Your task to perform on an android device: open app "Google Sheets" Image 0: 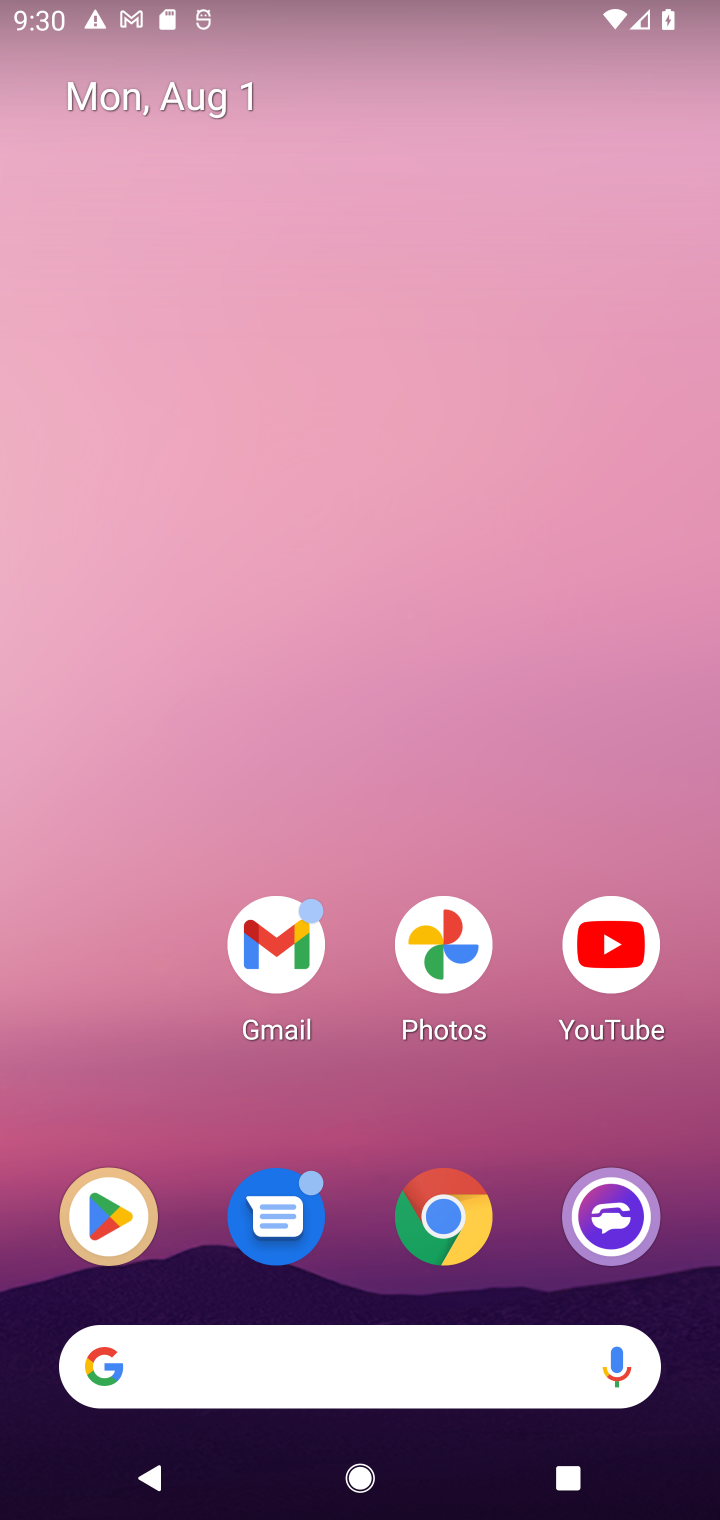
Step 0: click (107, 1242)
Your task to perform on an android device: open app "Google Sheets" Image 1: 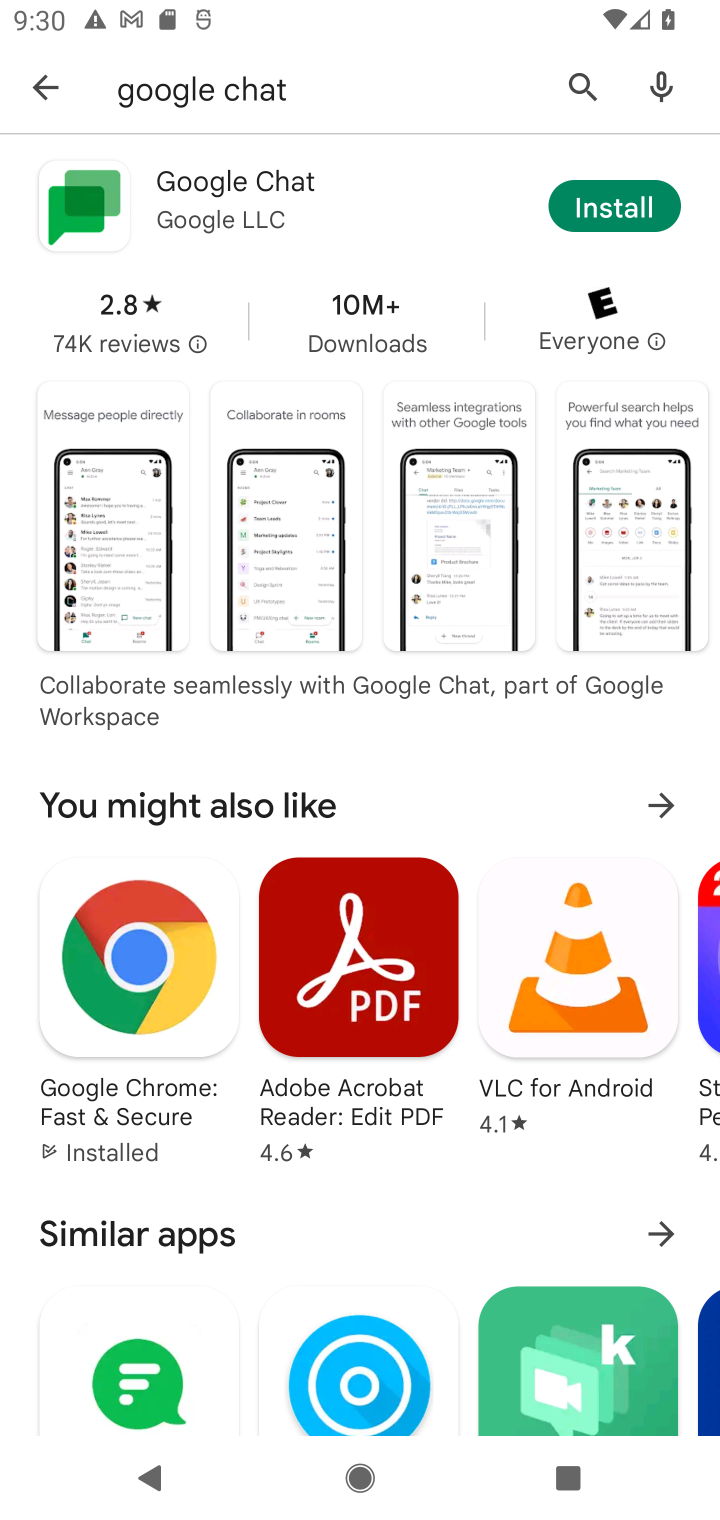
Step 1: click (578, 81)
Your task to perform on an android device: open app "Google Sheets" Image 2: 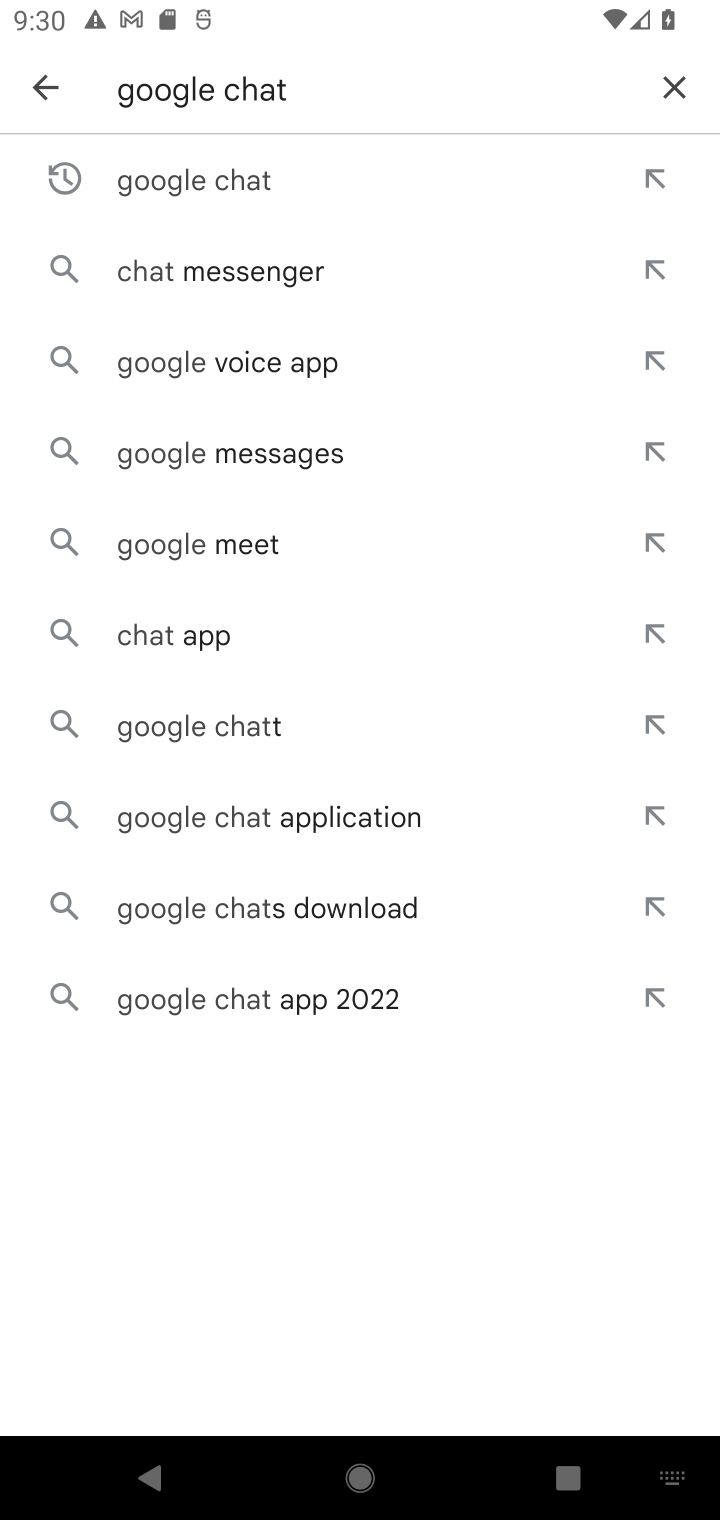
Step 2: click (684, 83)
Your task to perform on an android device: open app "Google Sheets" Image 3: 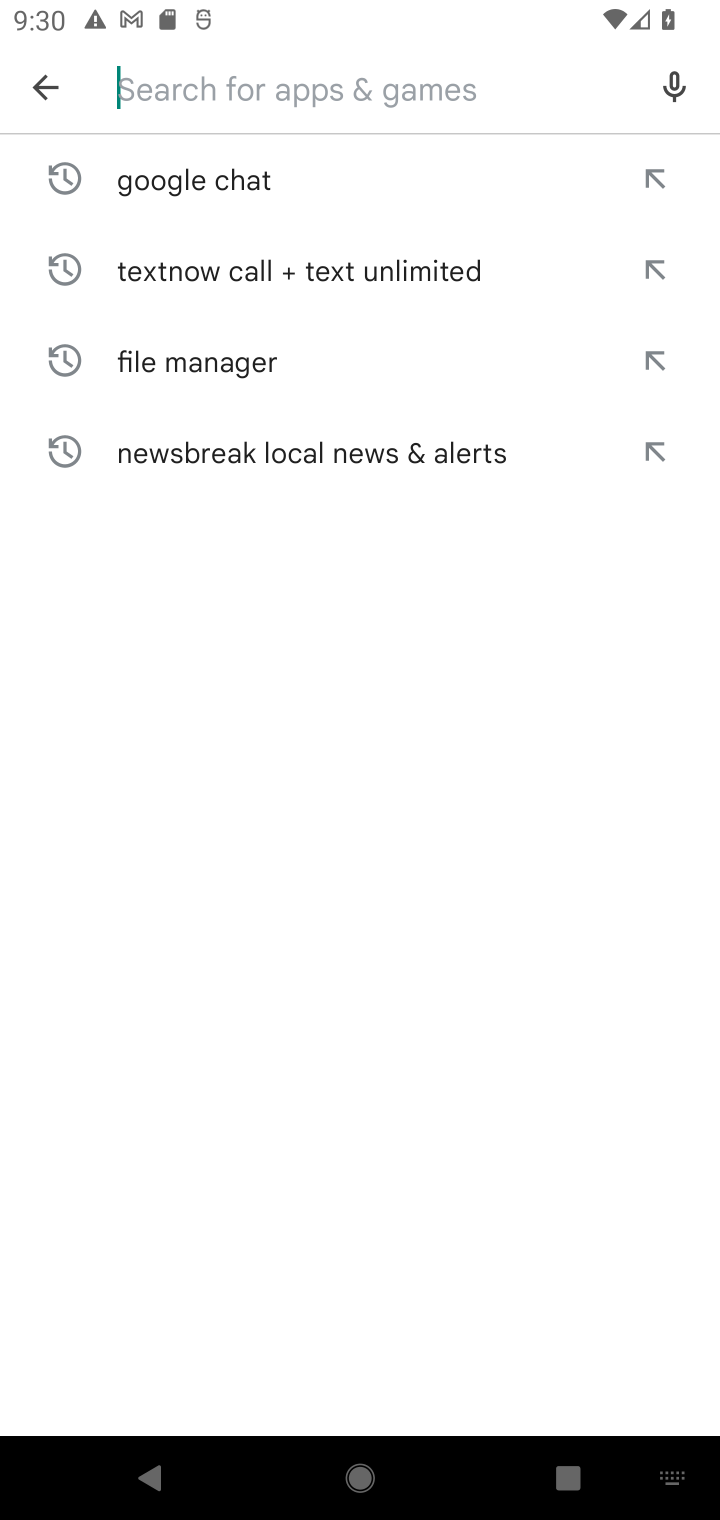
Step 3: type "Google Sheets"
Your task to perform on an android device: open app "Google Sheets" Image 4: 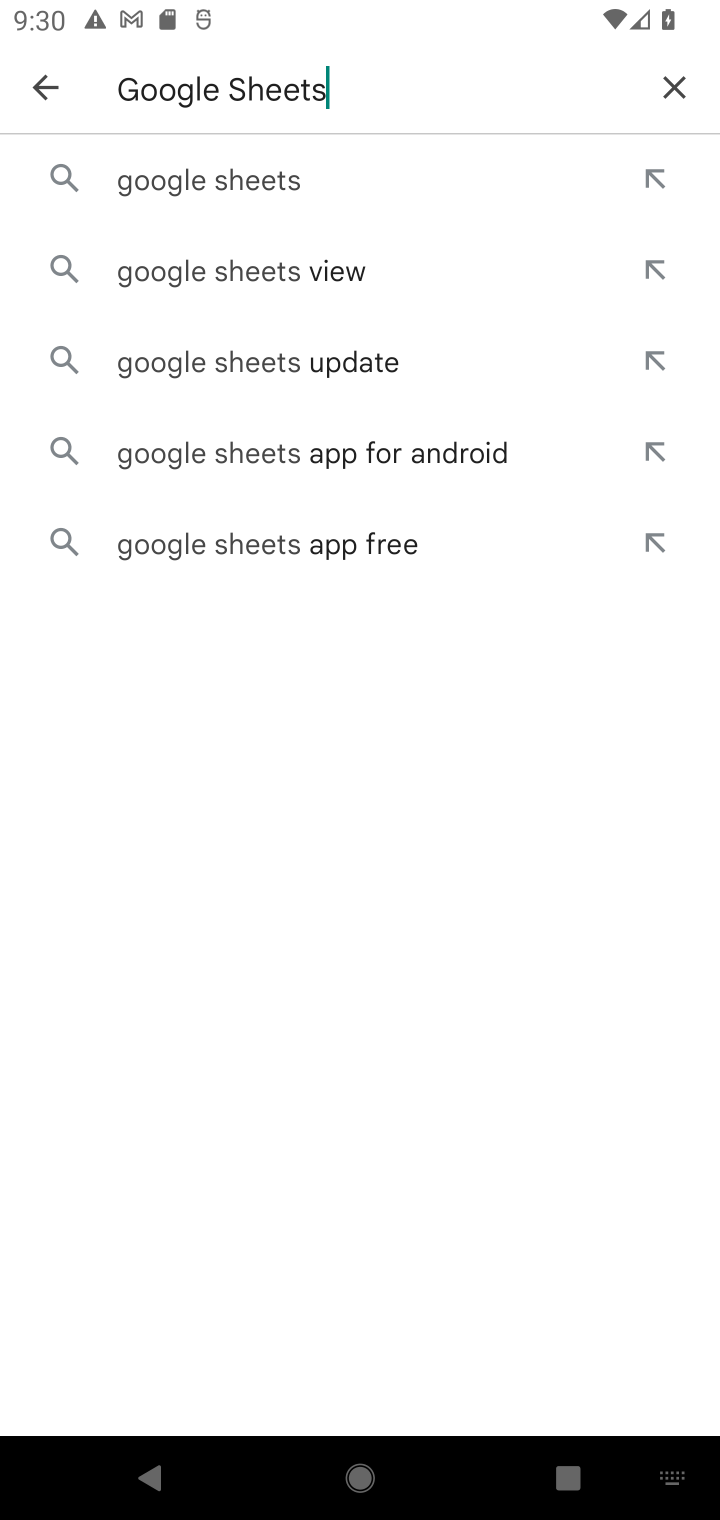
Step 4: click (222, 193)
Your task to perform on an android device: open app "Google Sheets" Image 5: 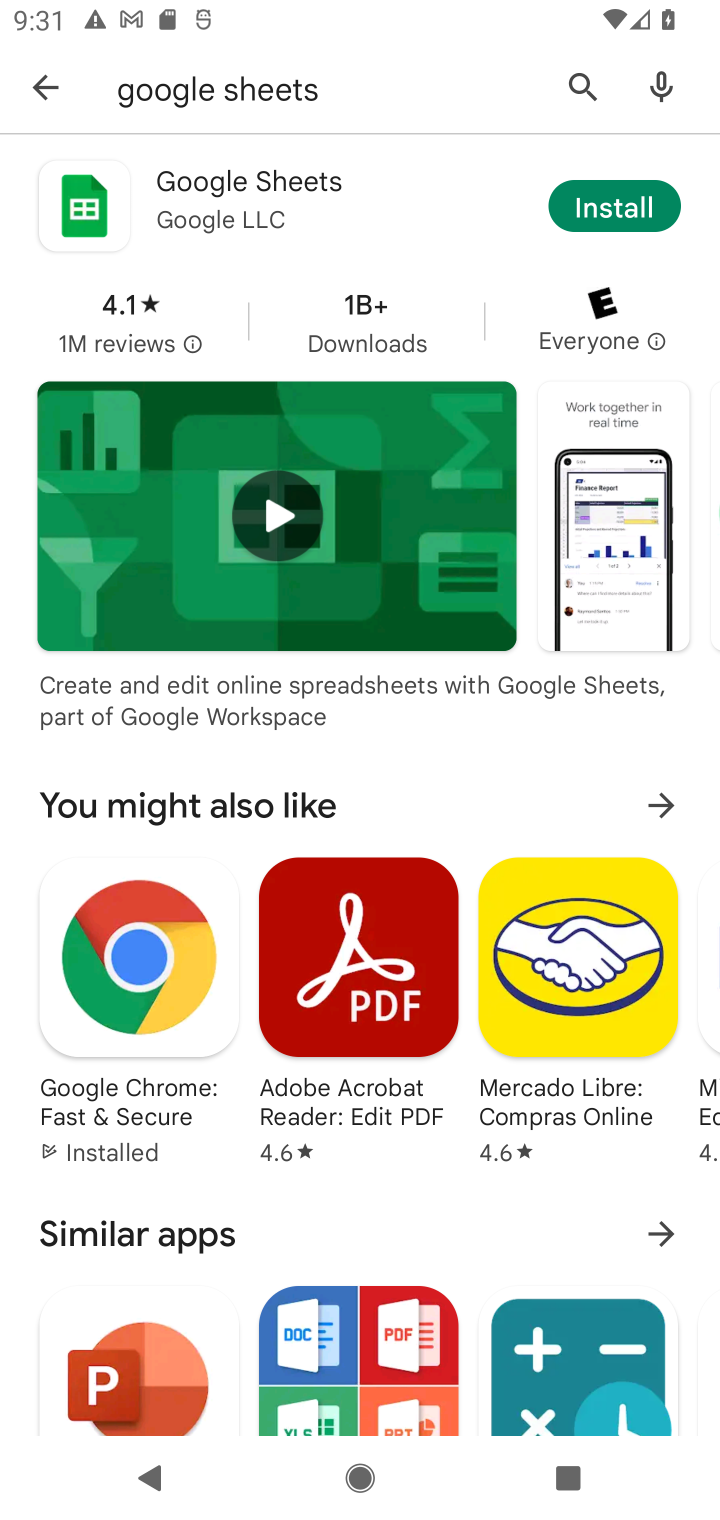
Step 5: task complete